Your task to perform on an android device: Is it going to rain today? Image 0: 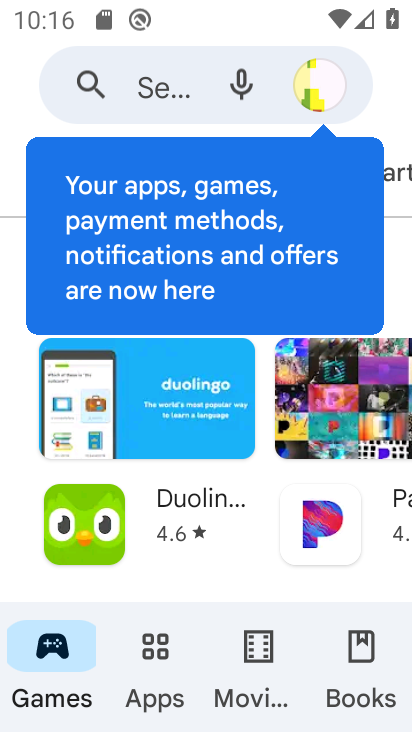
Step 0: press home button
Your task to perform on an android device: Is it going to rain today? Image 1: 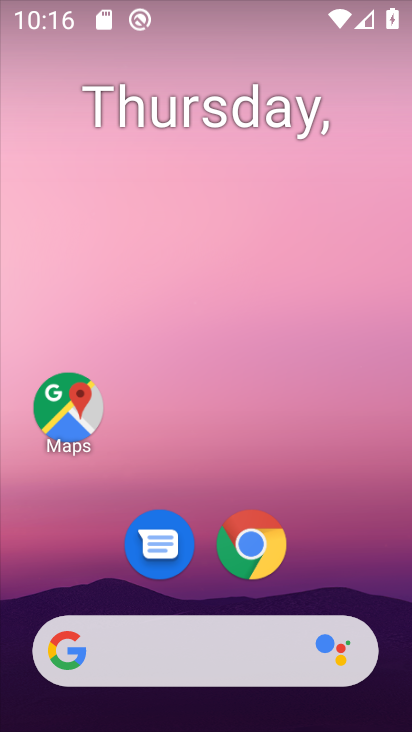
Step 1: click (143, 661)
Your task to perform on an android device: Is it going to rain today? Image 2: 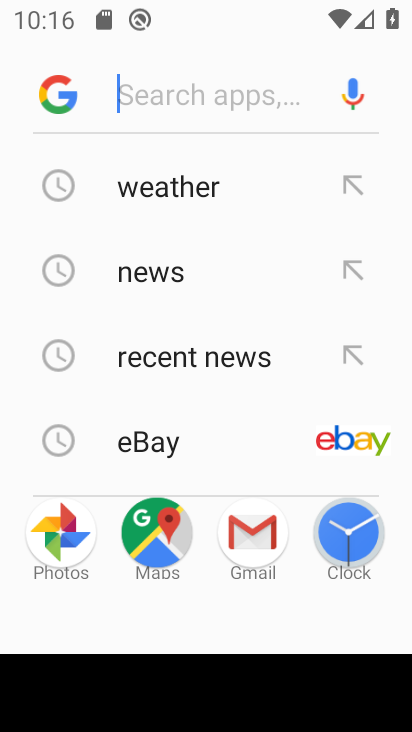
Step 2: click (192, 191)
Your task to perform on an android device: Is it going to rain today? Image 3: 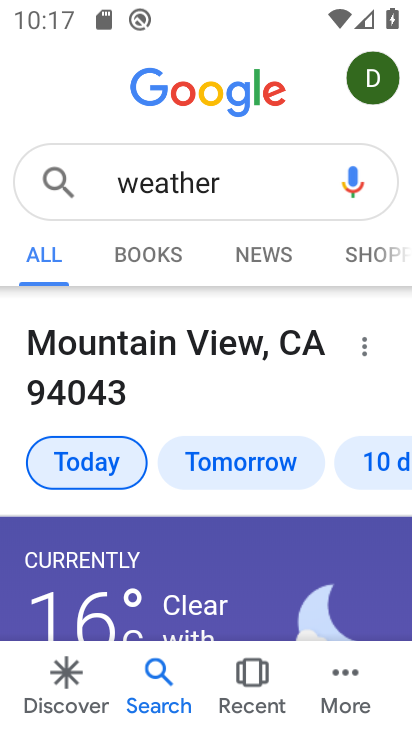
Step 3: task complete